Your task to perform on an android device: Open Reddit.com Image 0: 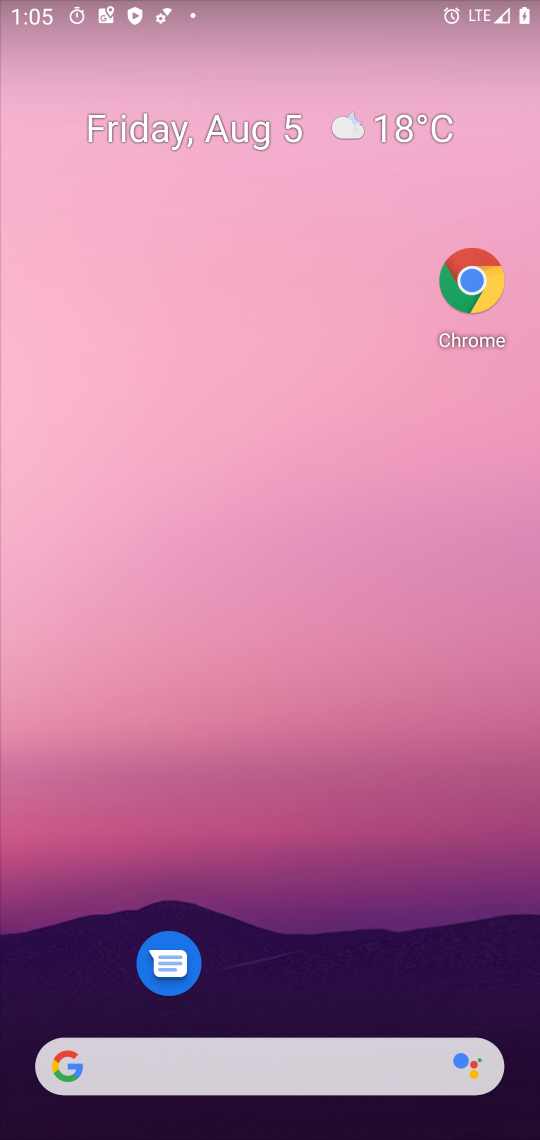
Step 0: drag from (380, 984) to (405, 88)
Your task to perform on an android device: Open Reddit.com Image 1: 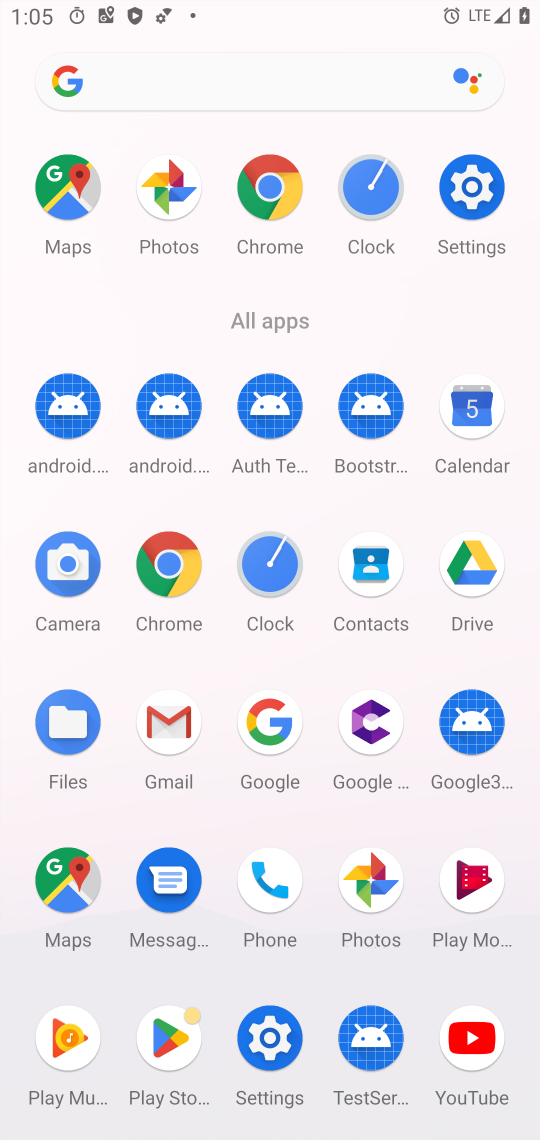
Step 1: click (280, 183)
Your task to perform on an android device: Open Reddit.com Image 2: 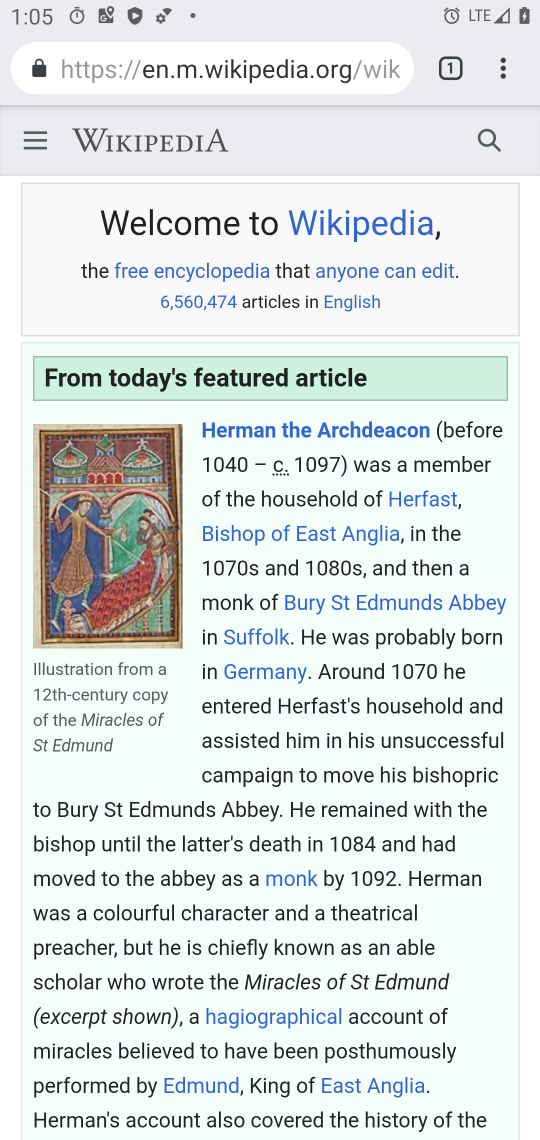
Step 2: click (372, 68)
Your task to perform on an android device: Open Reddit.com Image 3: 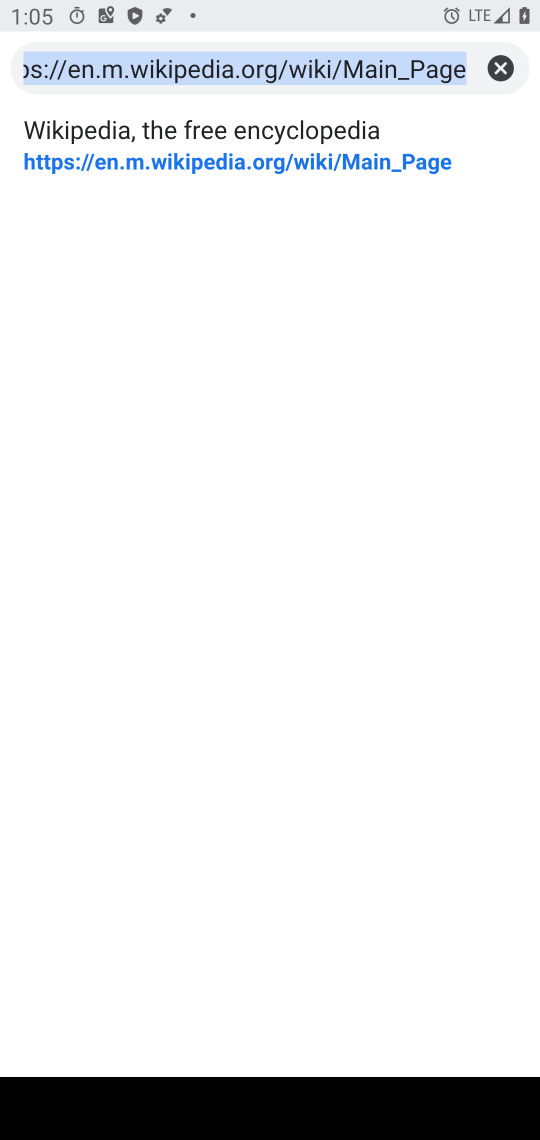
Step 3: click (499, 76)
Your task to perform on an android device: Open Reddit.com Image 4: 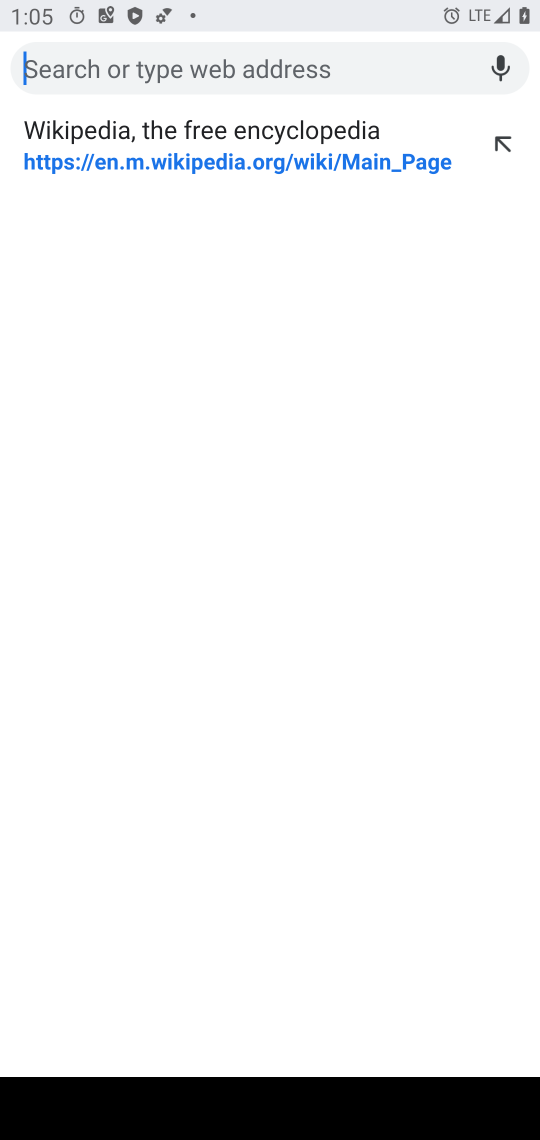
Step 4: type " Reddit.com"
Your task to perform on an android device: Open Reddit.com Image 5: 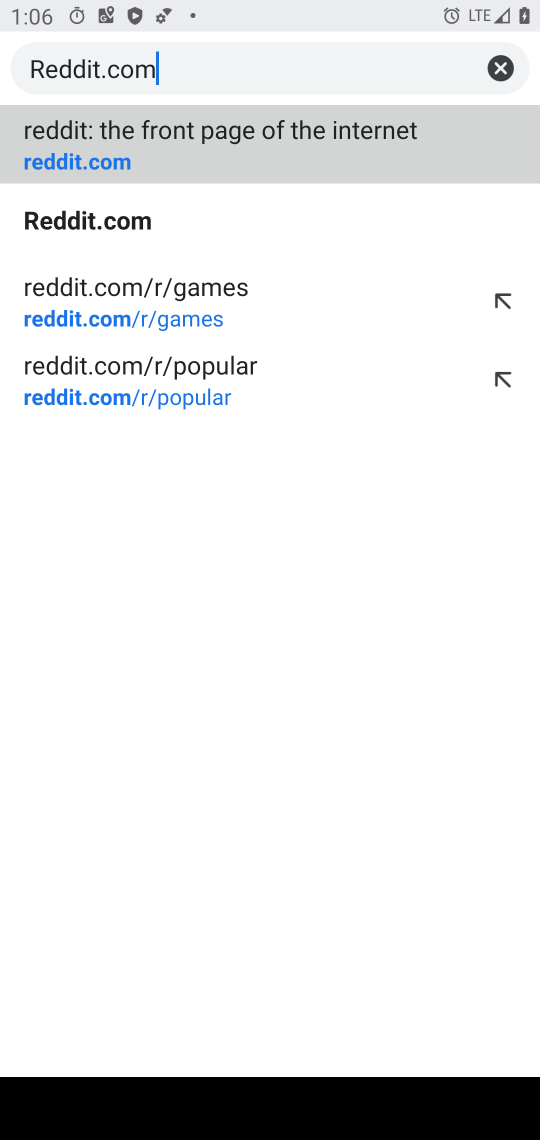
Step 5: click (99, 145)
Your task to perform on an android device: Open Reddit.com Image 6: 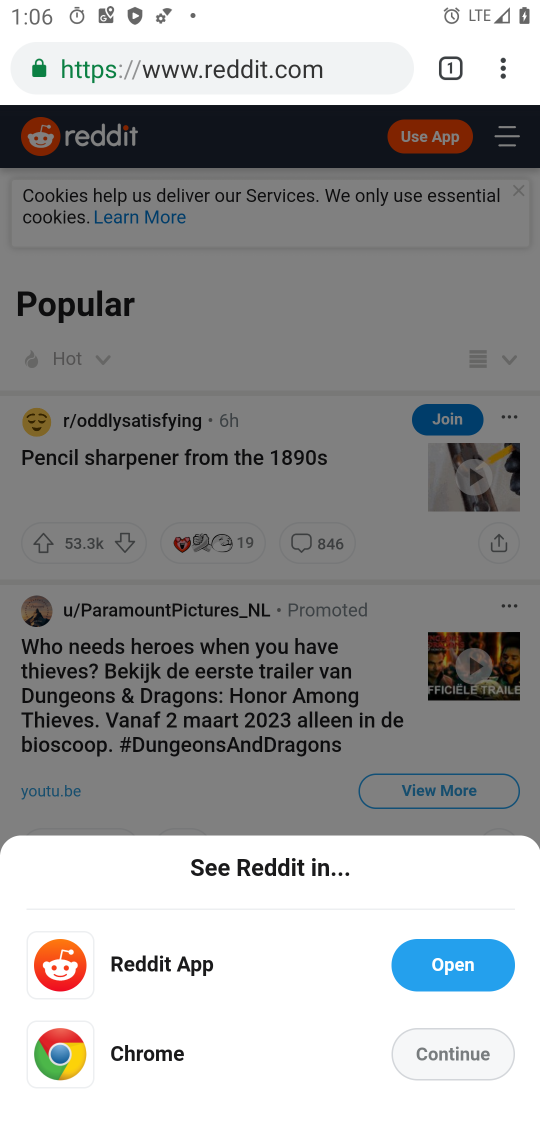
Step 6: task complete